Your task to perform on an android device: search for starred emails in the gmail app Image 0: 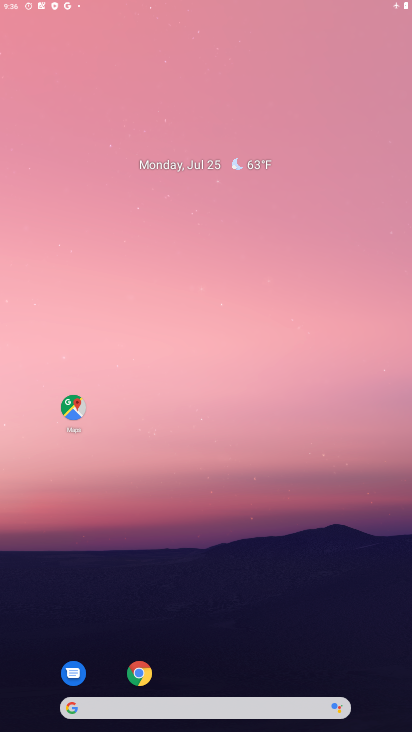
Step 0: drag from (369, 6) to (162, 15)
Your task to perform on an android device: search for starred emails in the gmail app Image 1: 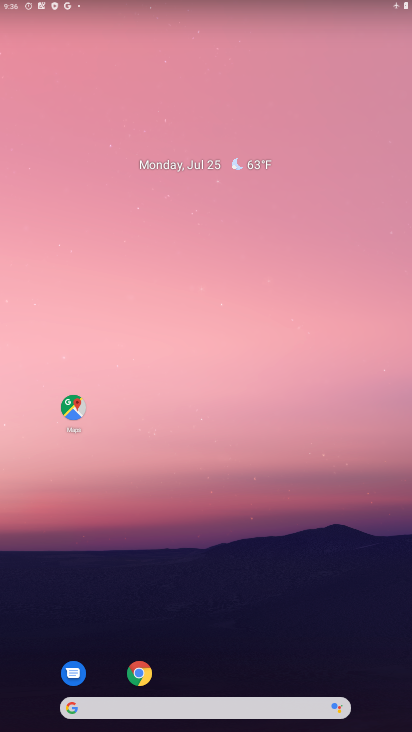
Step 1: drag from (179, 655) to (58, 15)
Your task to perform on an android device: search for starred emails in the gmail app Image 2: 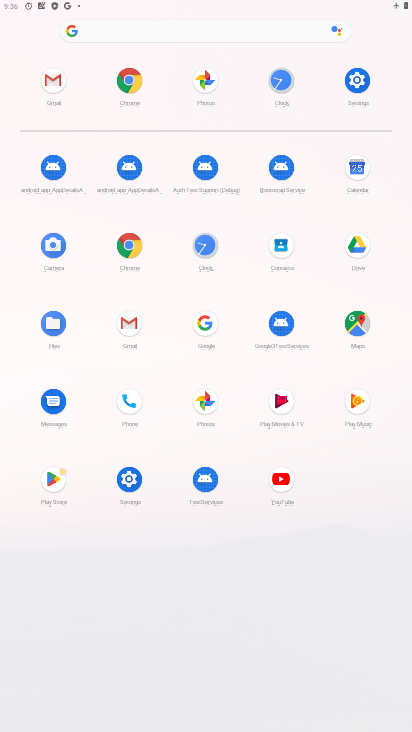
Step 2: click (143, 312)
Your task to perform on an android device: search for starred emails in the gmail app Image 3: 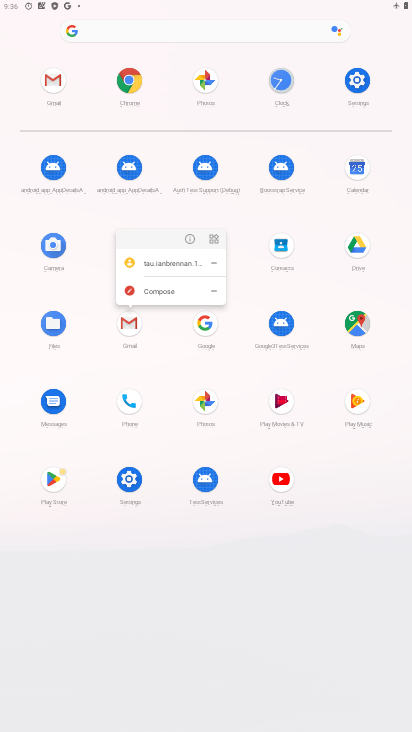
Step 3: click (187, 244)
Your task to perform on an android device: search for starred emails in the gmail app Image 4: 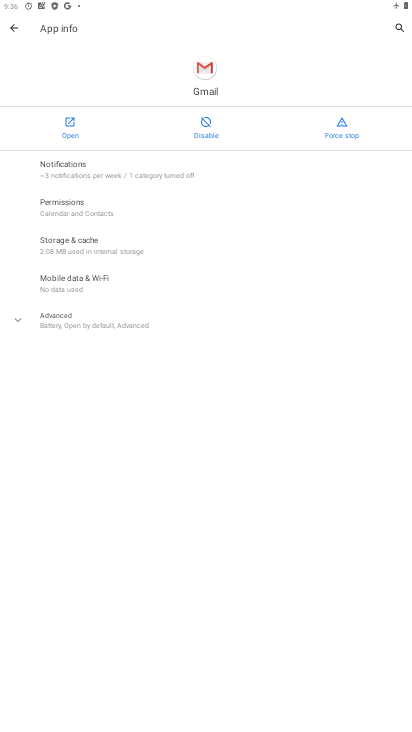
Step 4: click (63, 131)
Your task to perform on an android device: search for starred emails in the gmail app Image 5: 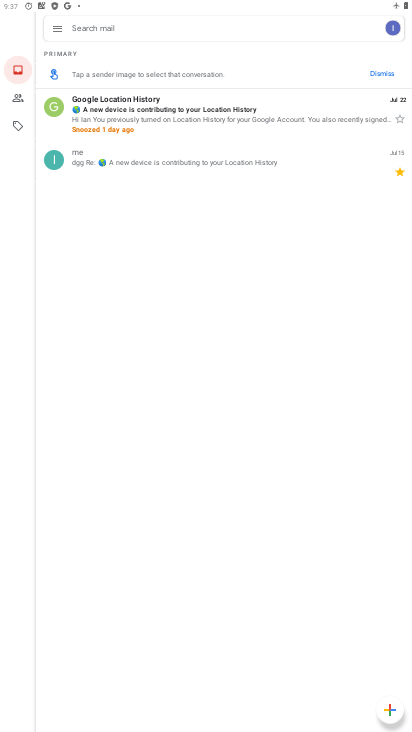
Step 5: drag from (150, 526) to (177, 380)
Your task to perform on an android device: search for starred emails in the gmail app Image 6: 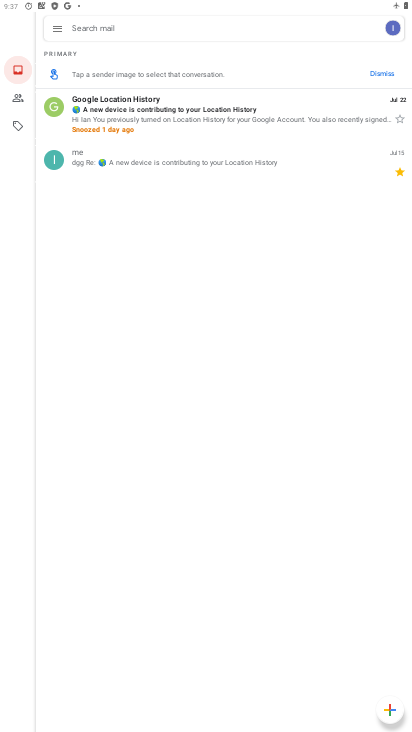
Step 6: click (49, 28)
Your task to perform on an android device: search for starred emails in the gmail app Image 7: 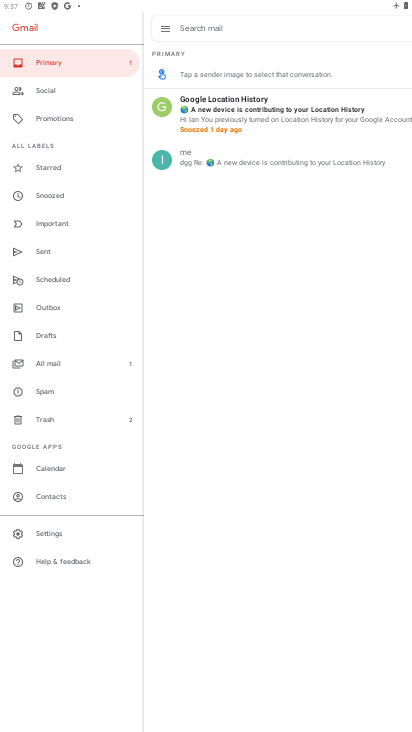
Step 7: click (41, 172)
Your task to perform on an android device: search for starred emails in the gmail app Image 8: 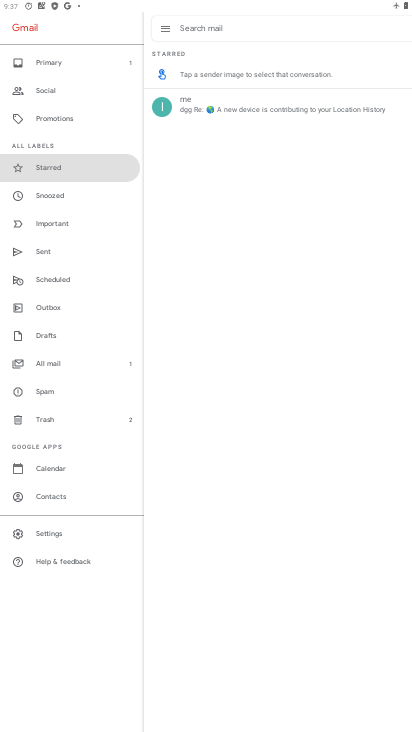
Step 8: task complete